Your task to perform on an android device: toggle wifi Image 0: 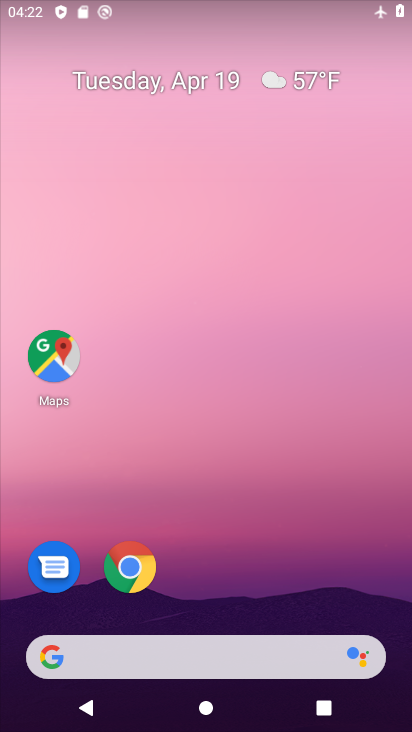
Step 0: drag from (368, 590) to (362, 121)
Your task to perform on an android device: toggle wifi Image 1: 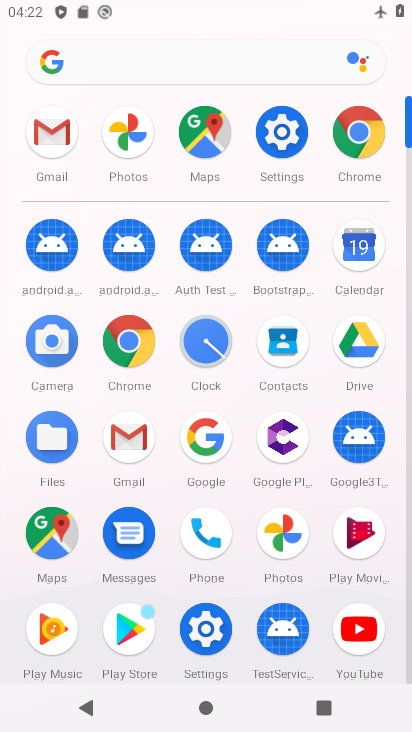
Step 1: click (214, 623)
Your task to perform on an android device: toggle wifi Image 2: 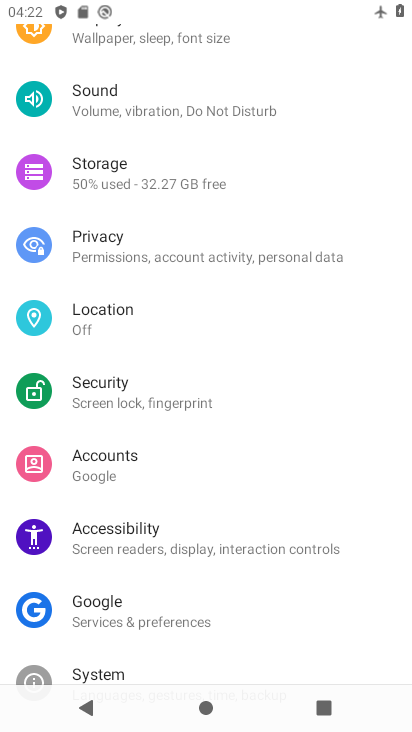
Step 2: drag from (357, 608) to (357, 449)
Your task to perform on an android device: toggle wifi Image 3: 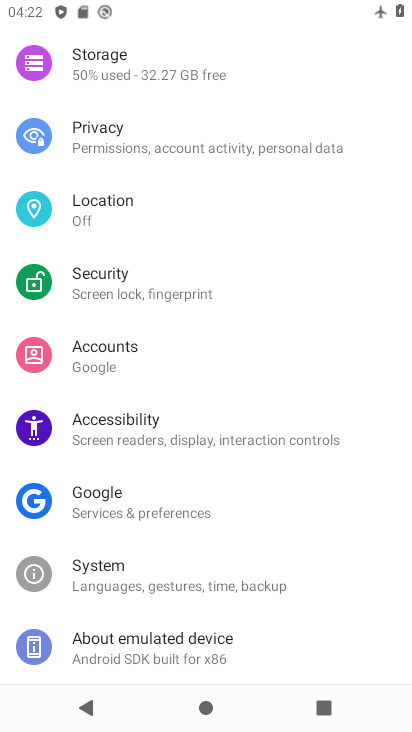
Step 3: drag from (349, 475) to (335, 572)
Your task to perform on an android device: toggle wifi Image 4: 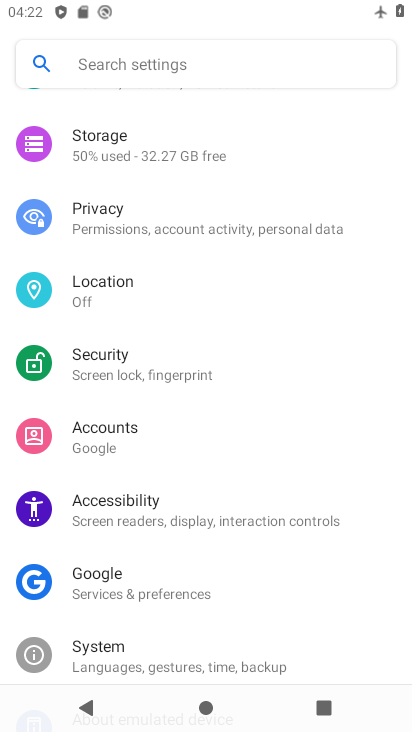
Step 4: drag from (369, 483) to (367, 580)
Your task to perform on an android device: toggle wifi Image 5: 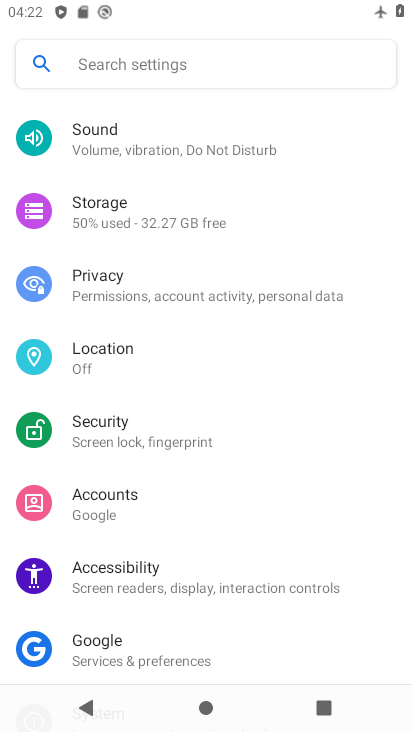
Step 5: drag from (375, 486) to (372, 595)
Your task to perform on an android device: toggle wifi Image 6: 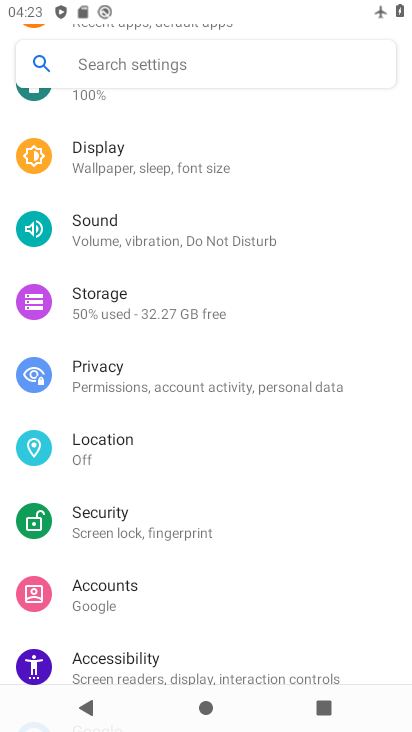
Step 6: drag from (376, 502) to (374, 602)
Your task to perform on an android device: toggle wifi Image 7: 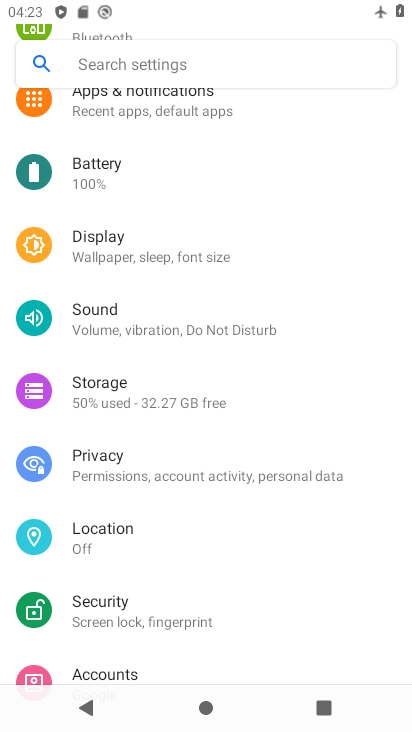
Step 7: drag from (374, 507) to (378, 607)
Your task to perform on an android device: toggle wifi Image 8: 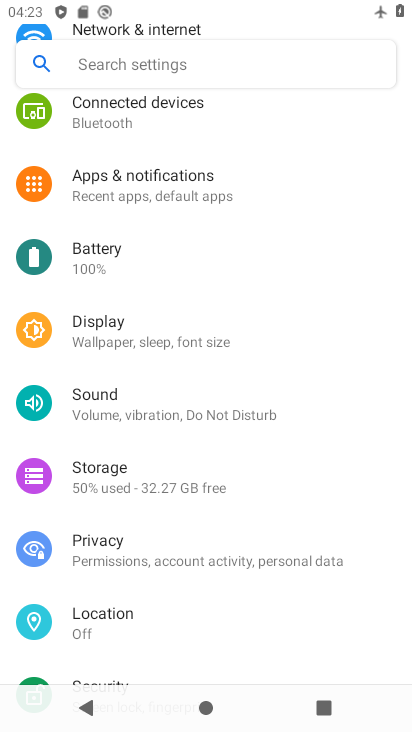
Step 8: drag from (372, 492) to (367, 615)
Your task to perform on an android device: toggle wifi Image 9: 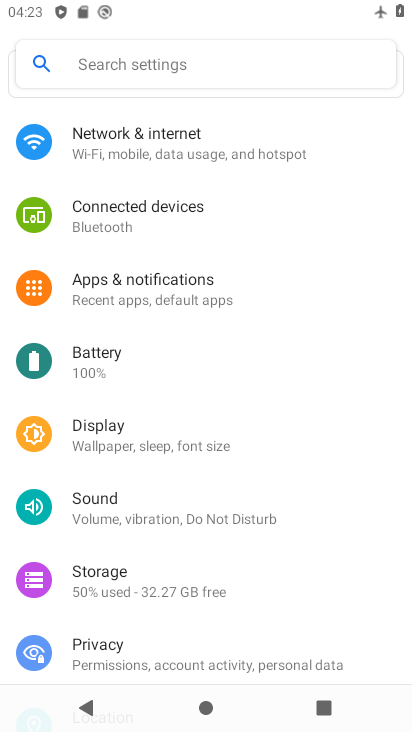
Step 9: drag from (364, 470) to (372, 587)
Your task to perform on an android device: toggle wifi Image 10: 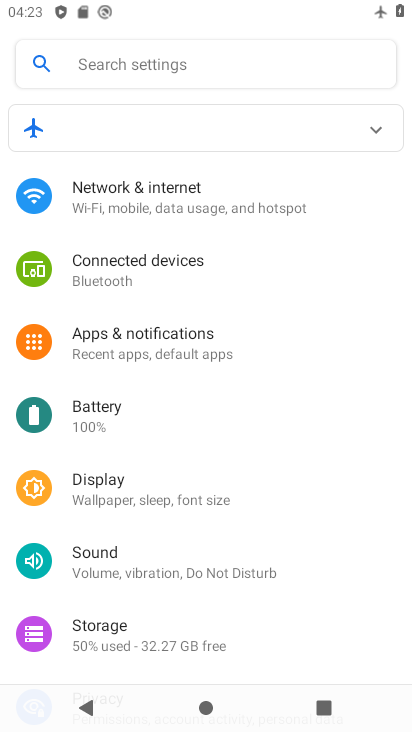
Step 10: drag from (362, 475) to (354, 595)
Your task to perform on an android device: toggle wifi Image 11: 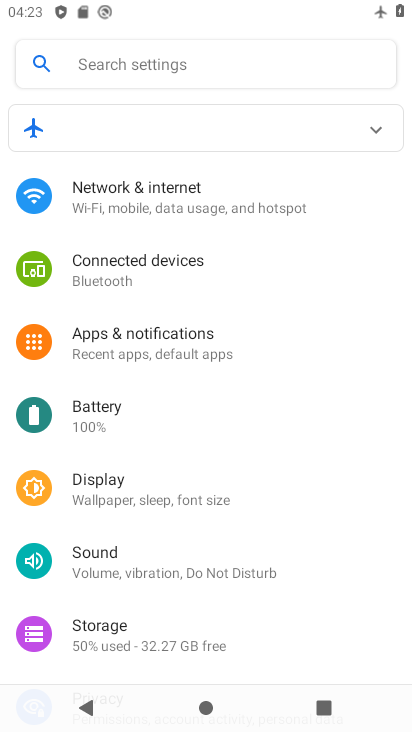
Step 11: click (256, 211)
Your task to perform on an android device: toggle wifi Image 12: 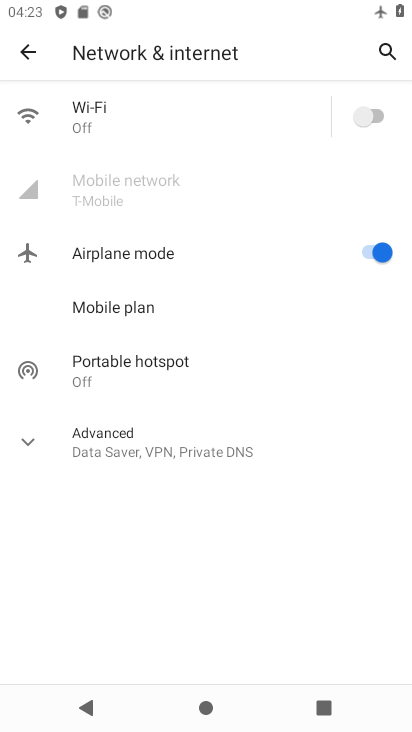
Step 12: click (362, 117)
Your task to perform on an android device: toggle wifi Image 13: 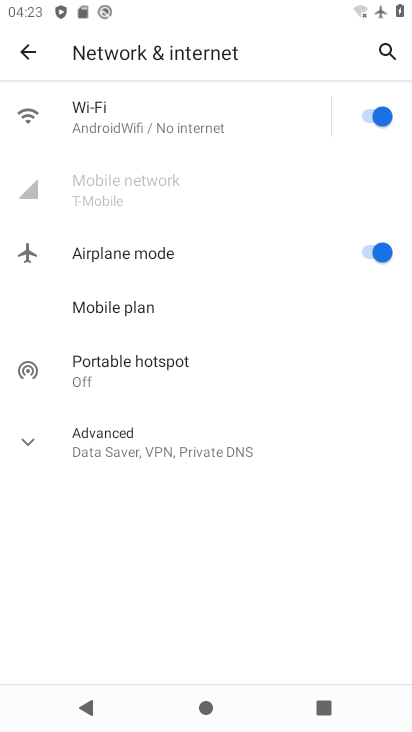
Step 13: task complete